Your task to perform on an android device: Open Google Chrome and click the shortcut for Amazon.com Image 0: 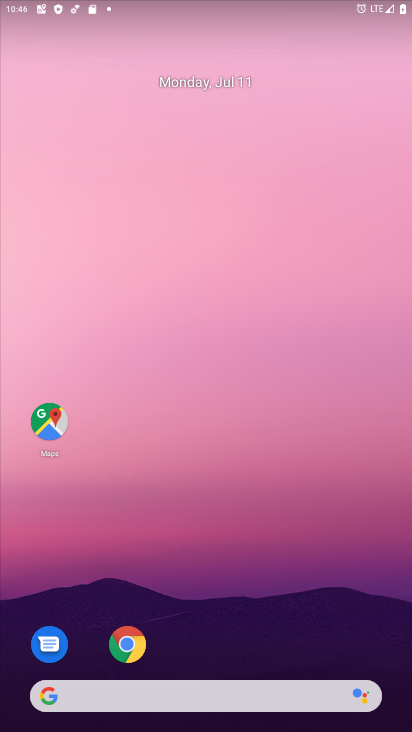
Step 0: drag from (288, 531) to (306, 307)
Your task to perform on an android device: Open Google Chrome and click the shortcut for Amazon.com Image 1: 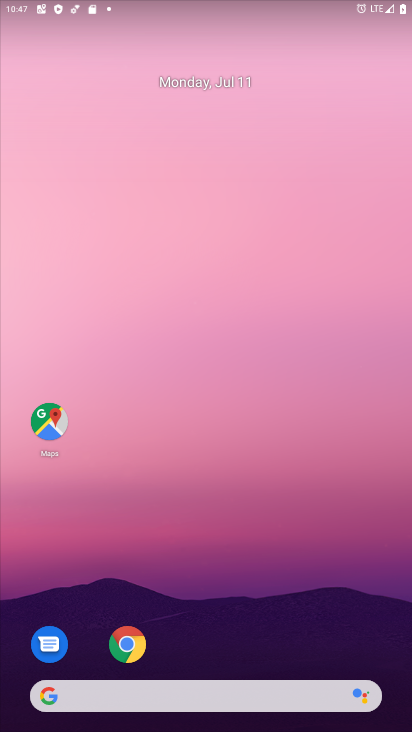
Step 1: drag from (245, 685) to (248, 180)
Your task to perform on an android device: Open Google Chrome and click the shortcut for Amazon.com Image 2: 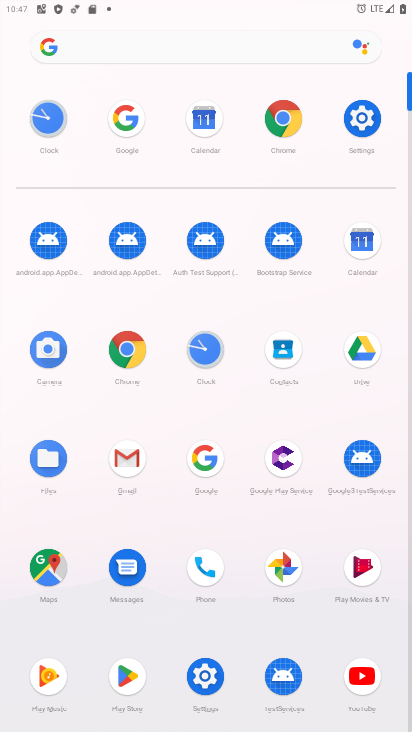
Step 2: click (281, 111)
Your task to perform on an android device: Open Google Chrome and click the shortcut for Amazon.com Image 3: 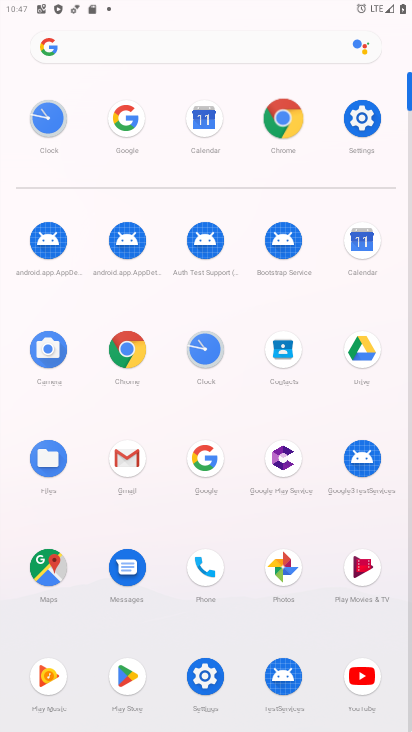
Step 3: click (281, 111)
Your task to perform on an android device: Open Google Chrome and click the shortcut for Amazon.com Image 4: 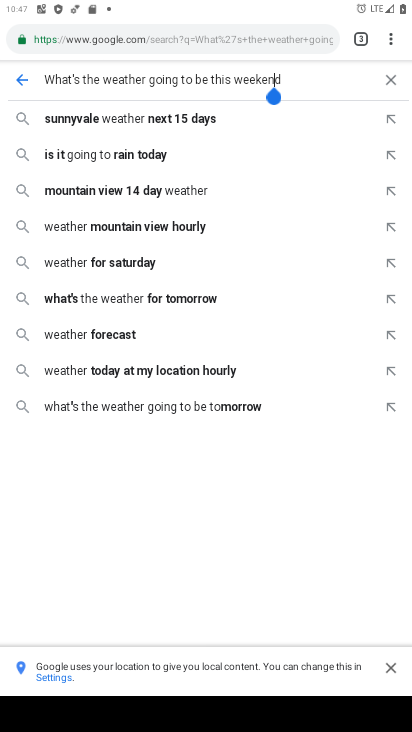
Step 4: click (398, 28)
Your task to perform on an android device: Open Google Chrome and click the shortcut for Amazon.com Image 5: 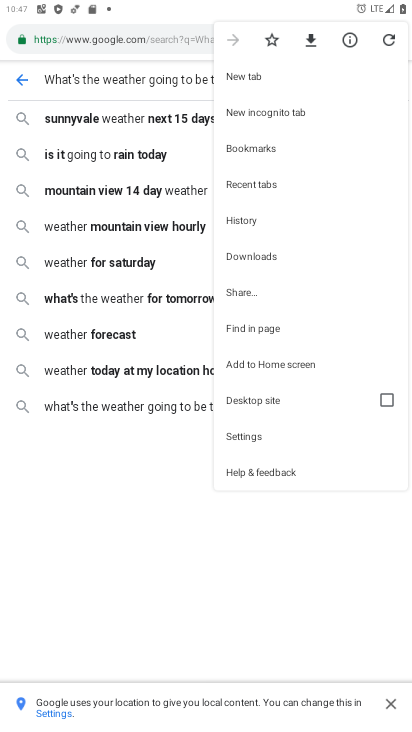
Step 5: click (250, 74)
Your task to perform on an android device: Open Google Chrome and click the shortcut for Amazon.com Image 6: 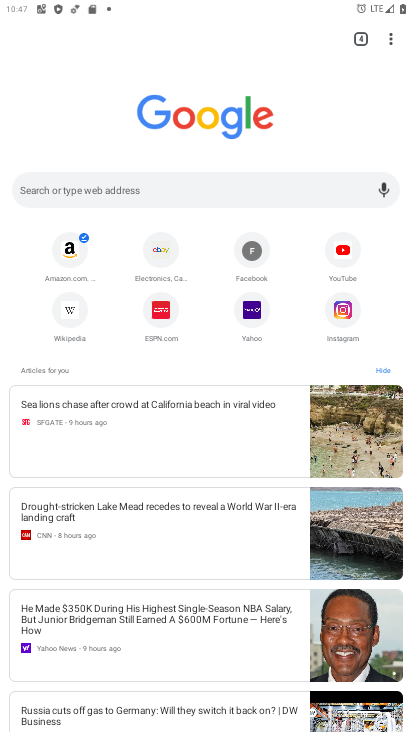
Step 6: click (61, 255)
Your task to perform on an android device: Open Google Chrome and click the shortcut for Amazon.com Image 7: 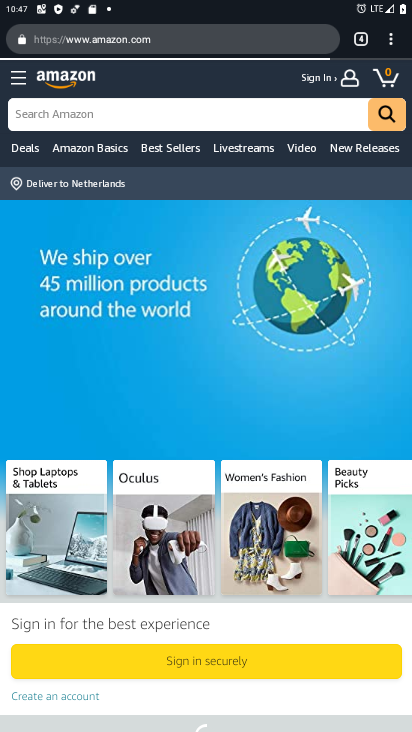
Step 7: task complete